Your task to perform on an android device: turn off wifi Image 0: 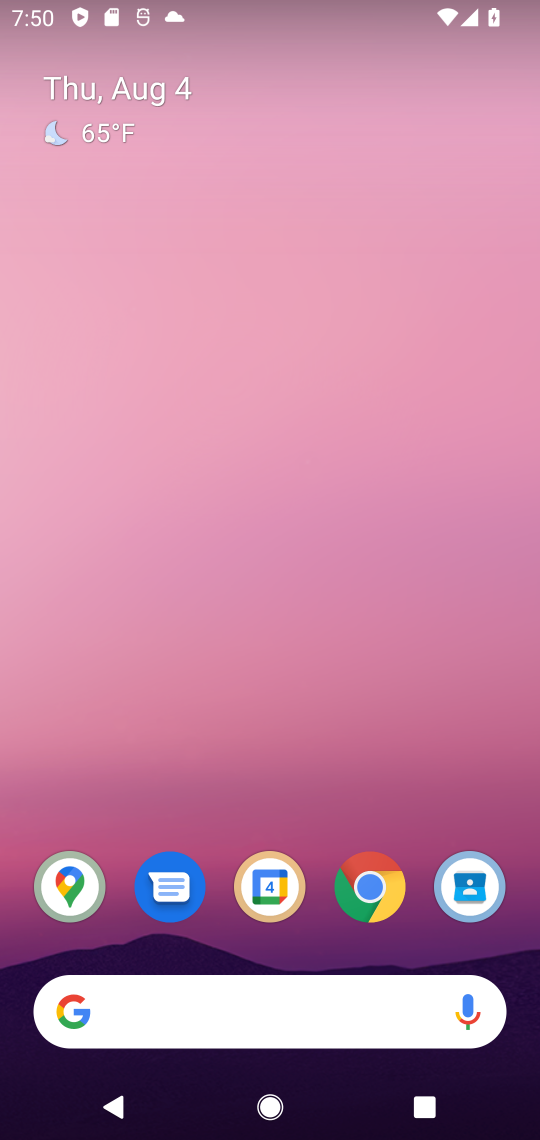
Step 0: press home button
Your task to perform on an android device: turn off wifi Image 1: 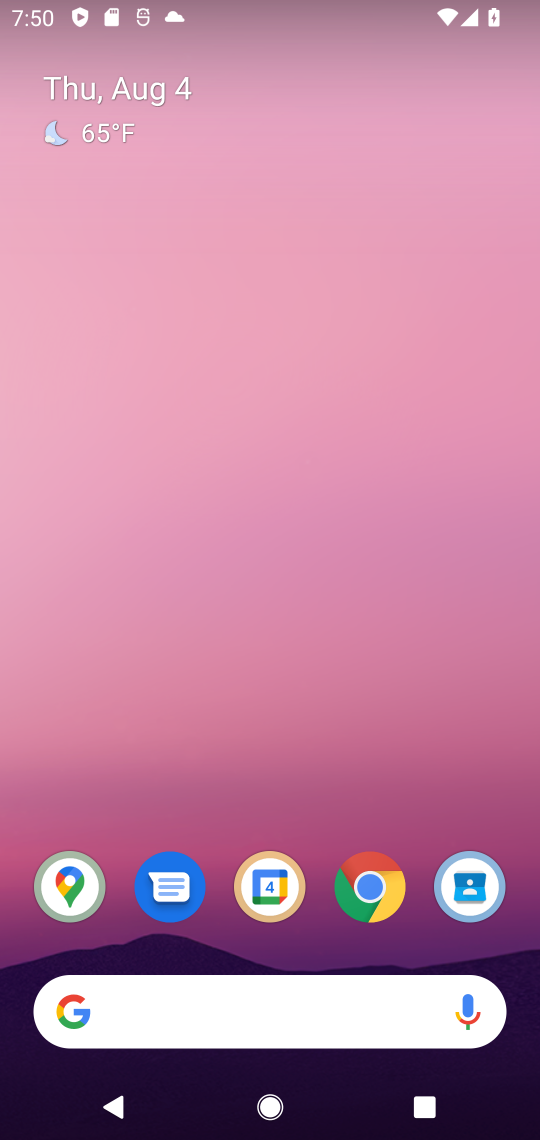
Step 1: drag from (237, 897) to (202, 411)
Your task to perform on an android device: turn off wifi Image 2: 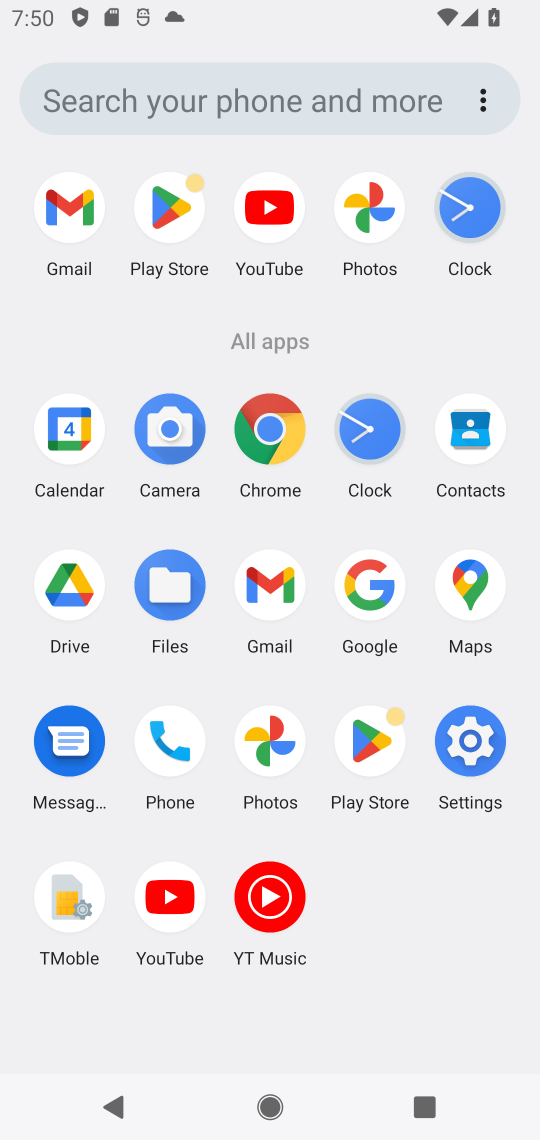
Step 2: click (482, 742)
Your task to perform on an android device: turn off wifi Image 3: 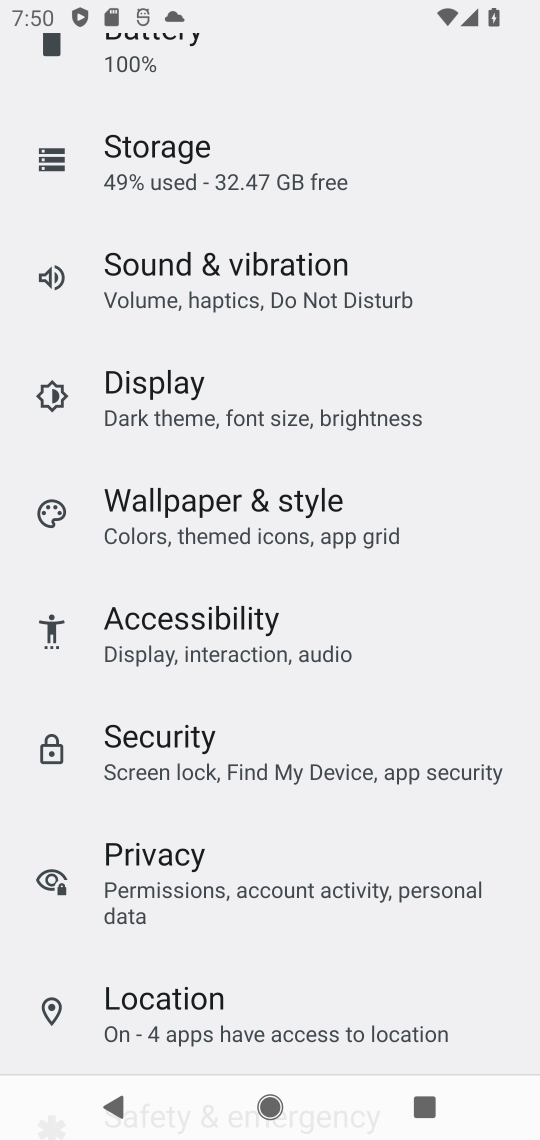
Step 3: drag from (175, 421) to (167, 670)
Your task to perform on an android device: turn off wifi Image 4: 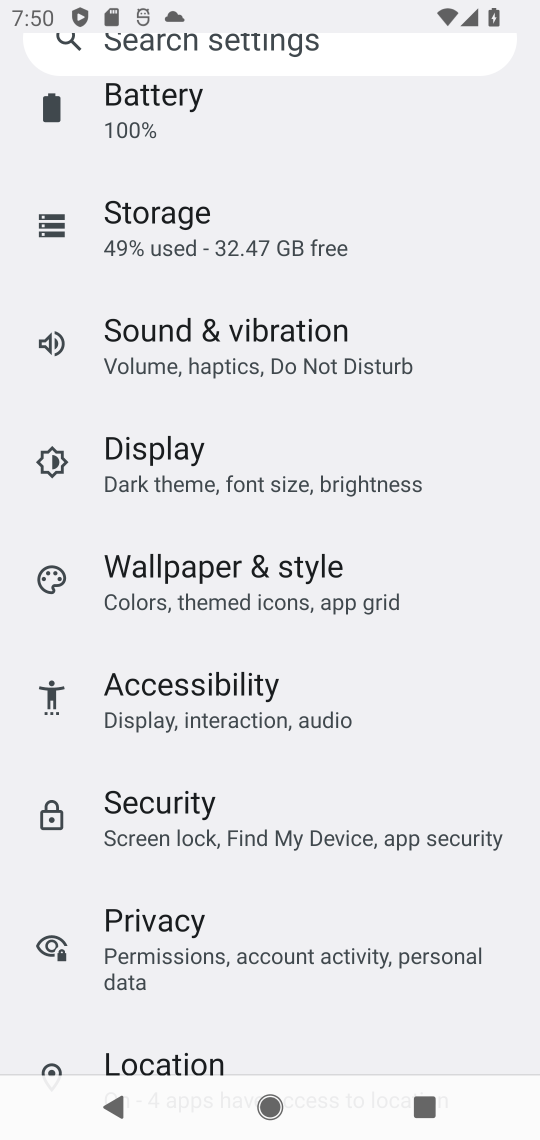
Step 4: drag from (105, 123) to (161, 597)
Your task to perform on an android device: turn off wifi Image 5: 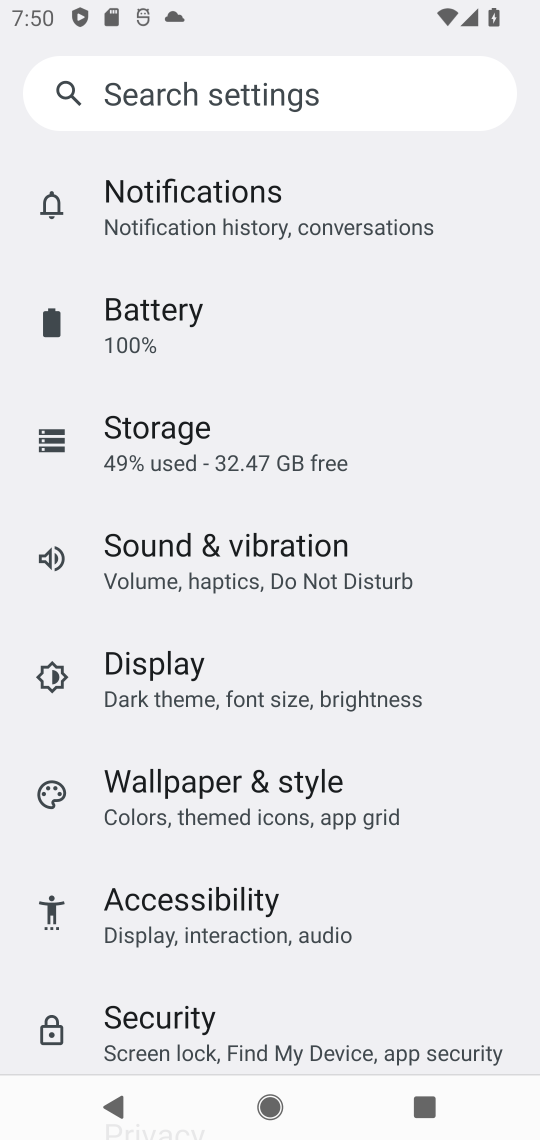
Step 5: drag from (158, 147) to (199, 712)
Your task to perform on an android device: turn off wifi Image 6: 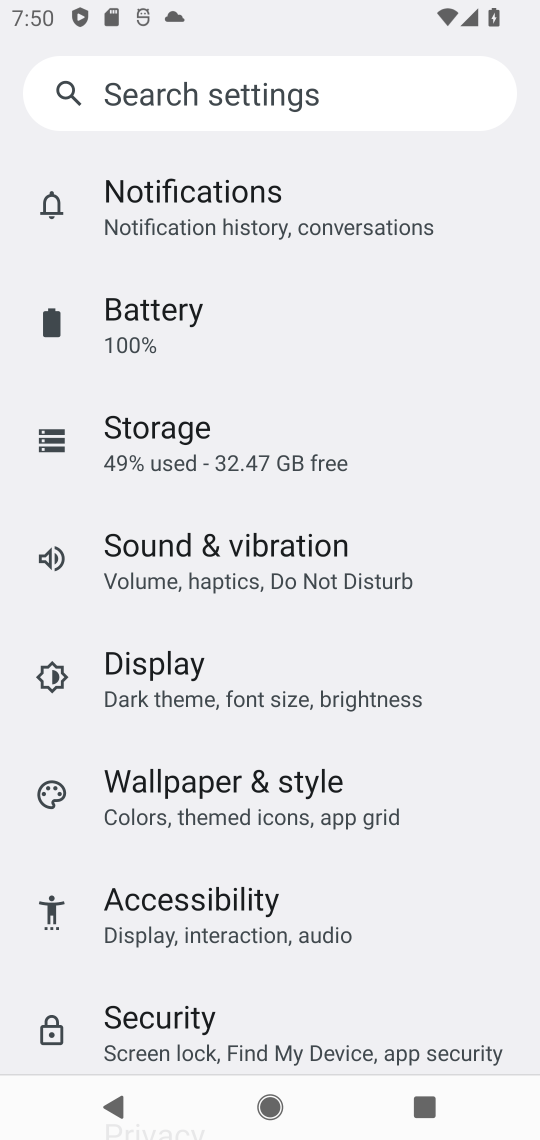
Step 6: drag from (184, 226) to (218, 828)
Your task to perform on an android device: turn off wifi Image 7: 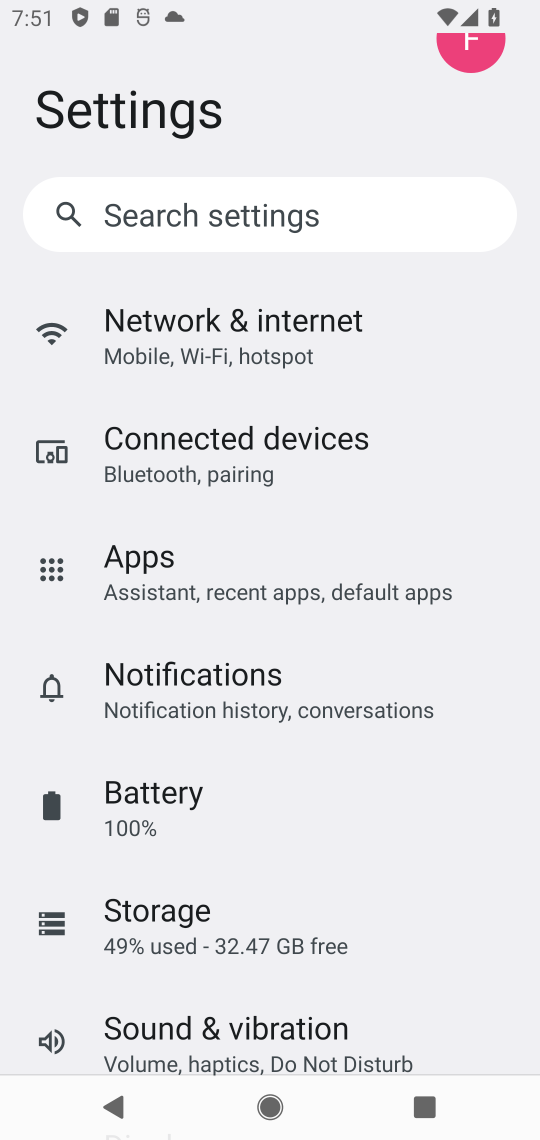
Step 7: click (185, 346)
Your task to perform on an android device: turn off wifi Image 8: 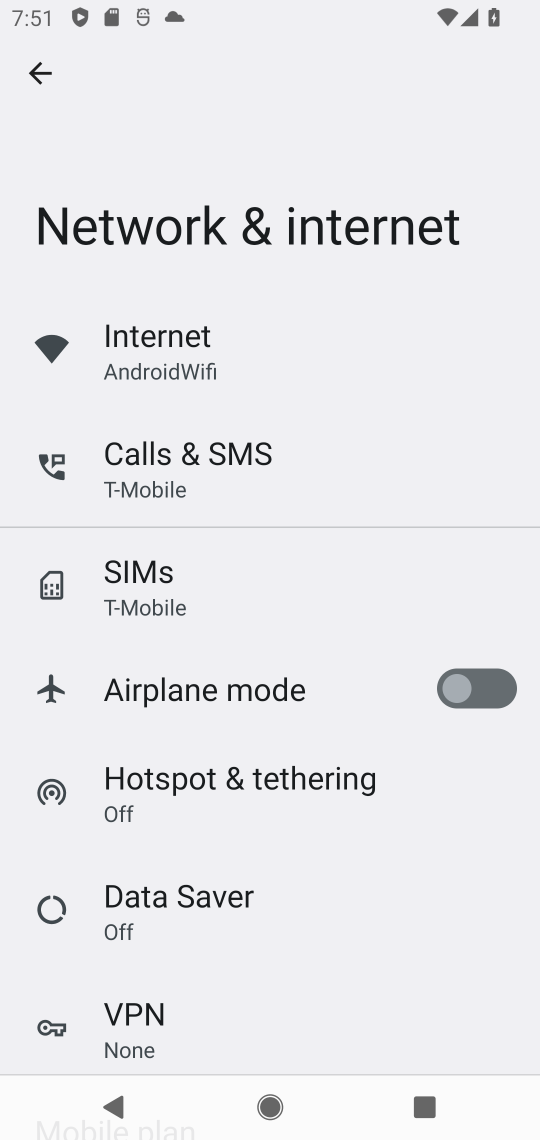
Step 8: click (181, 355)
Your task to perform on an android device: turn off wifi Image 9: 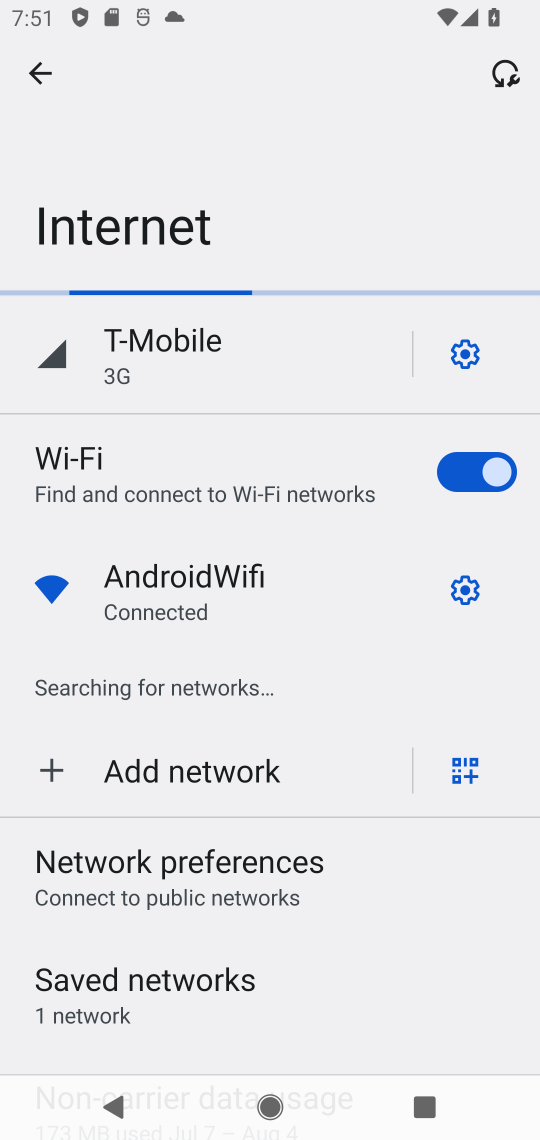
Step 9: click (465, 455)
Your task to perform on an android device: turn off wifi Image 10: 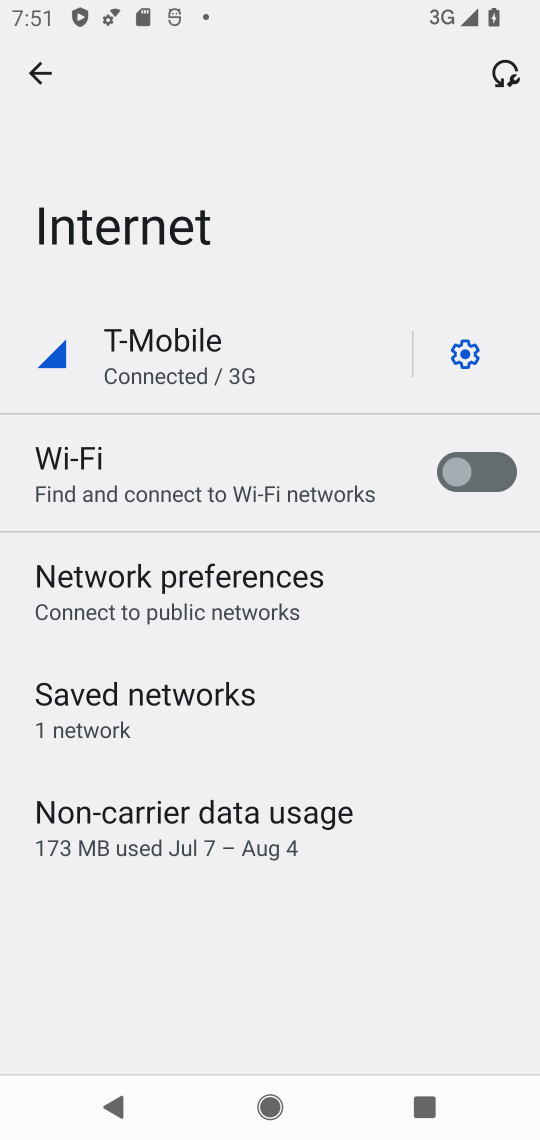
Step 10: task complete